Your task to perform on an android device: change the clock style Image 0: 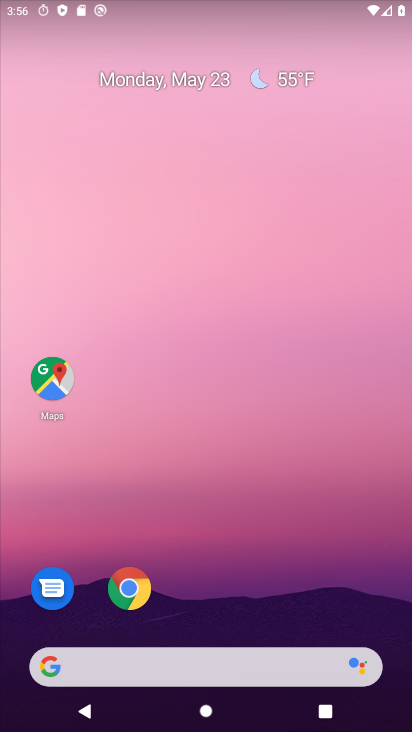
Step 0: drag from (244, 476) to (237, 93)
Your task to perform on an android device: change the clock style Image 1: 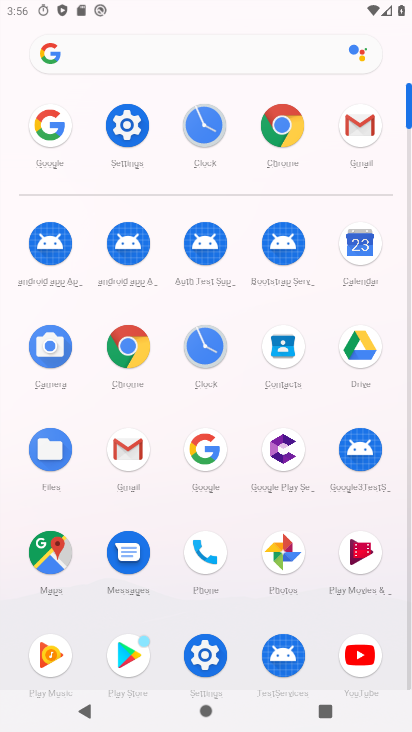
Step 1: click (208, 351)
Your task to perform on an android device: change the clock style Image 2: 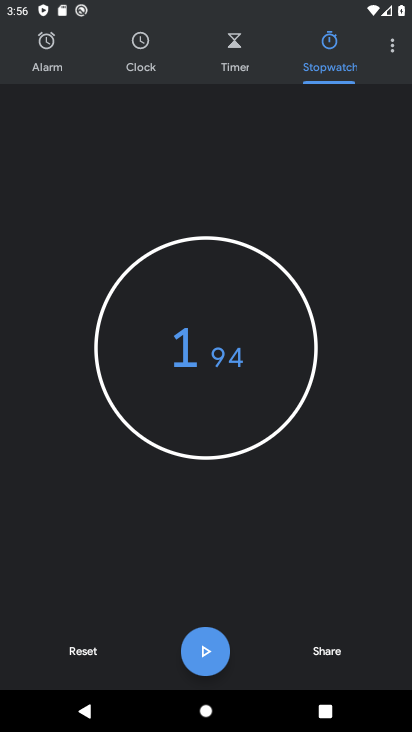
Step 2: click (386, 46)
Your task to perform on an android device: change the clock style Image 3: 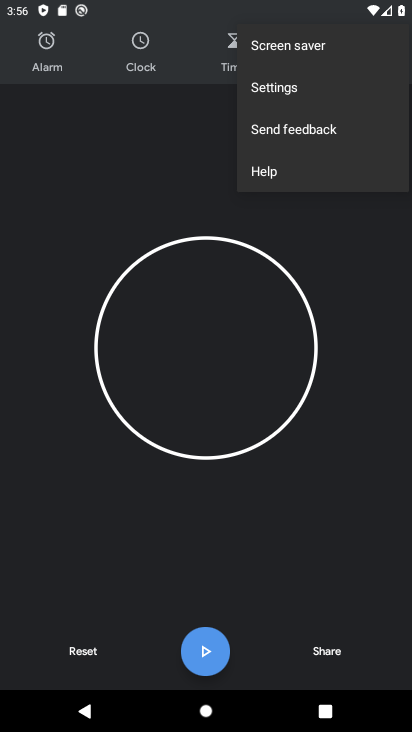
Step 3: click (304, 78)
Your task to perform on an android device: change the clock style Image 4: 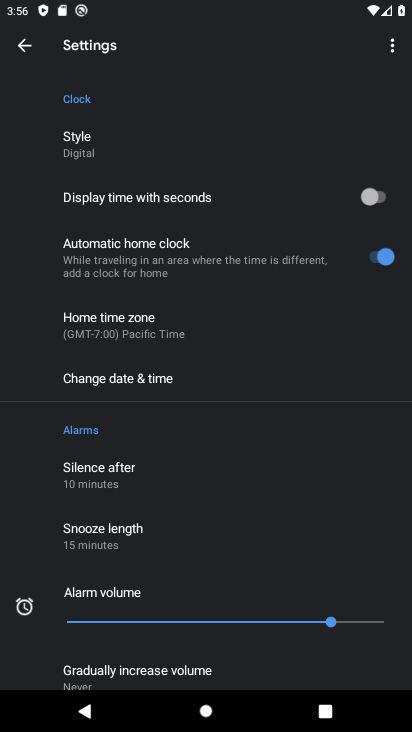
Step 4: click (160, 152)
Your task to perform on an android device: change the clock style Image 5: 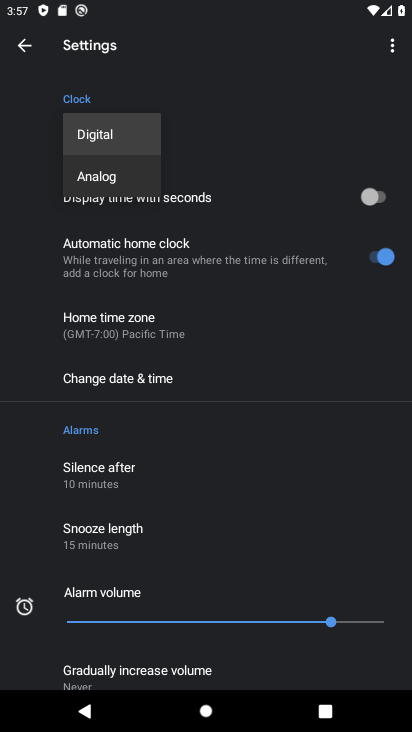
Step 5: click (100, 176)
Your task to perform on an android device: change the clock style Image 6: 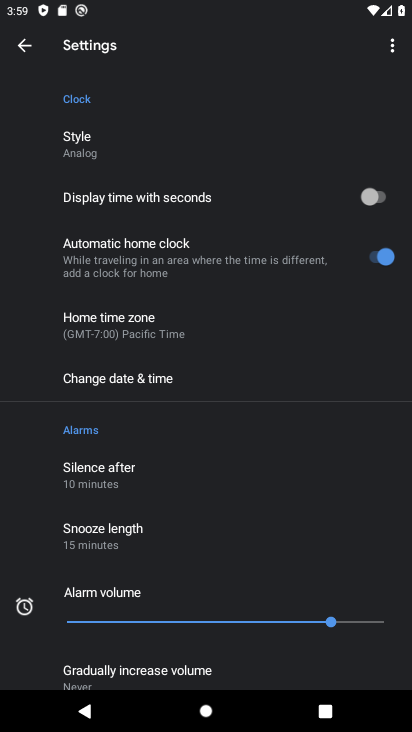
Step 6: task complete